Your task to perform on an android device: open app "PlayWell" (install if not already installed) Image 0: 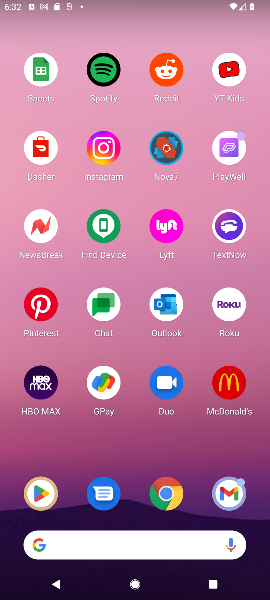
Step 0: click (43, 499)
Your task to perform on an android device: open app "PlayWell" (install if not already installed) Image 1: 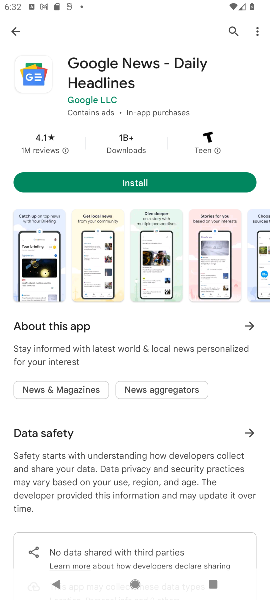
Step 1: click (43, 499)
Your task to perform on an android device: open app "PlayWell" (install if not already installed) Image 2: 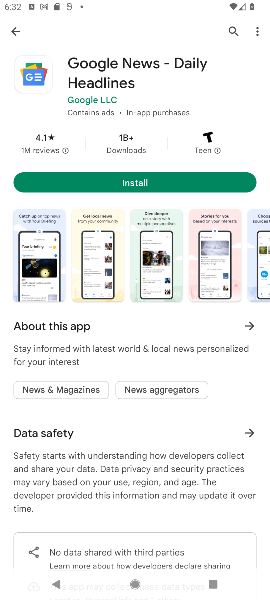
Step 2: click (234, 26)
Your task to perform on an android device: open app "PlayWell" (install if not already installed) Image 3: 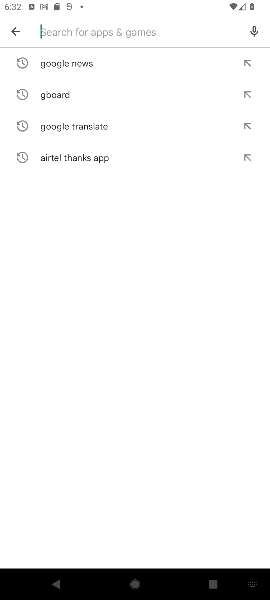
Step 3: type "PlayWell"
Your task to perform on an android device: open app "PlayWell" (install if not already installed) Image 4: 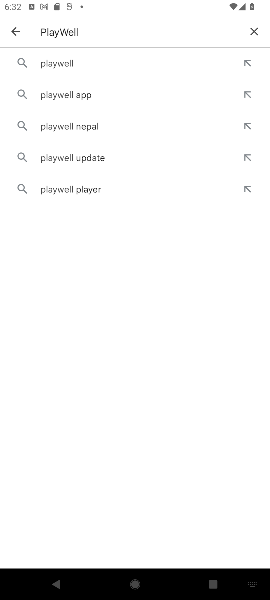
Step 4: click (55, 64)
Your task to perform on an android device: open app "PlayWell" (install if not already installed) Image 5: 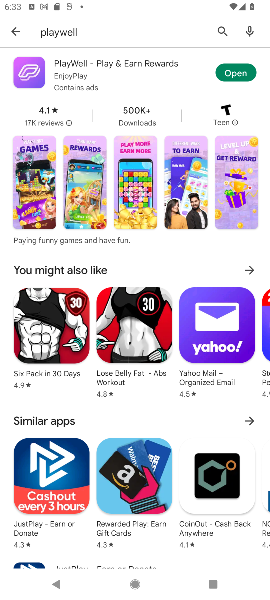
Step 5: click (234, 69)
Your task to perform on an android device: open app "PlayWell" (install if not already installed) Image 6: 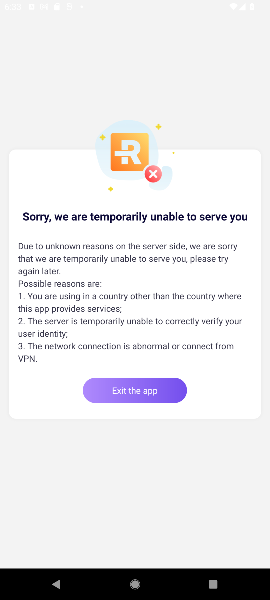
Step 6: task complete